Your task to perform on an android device: turn on improve location accuracy Image 0: 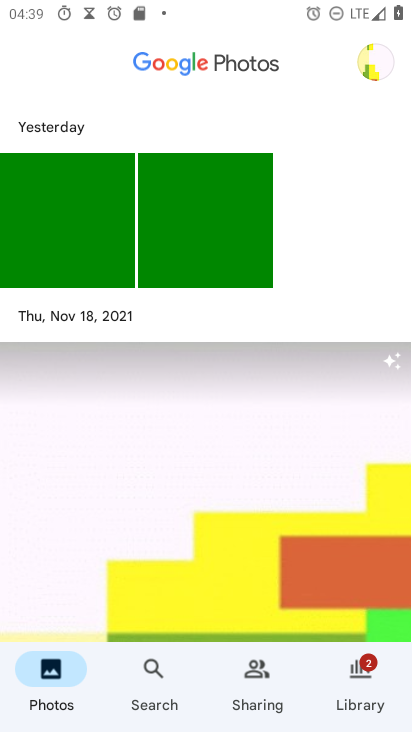
Step 0: press home button
Your task to perform on an android device: turn on improve location accuracy Image 1: 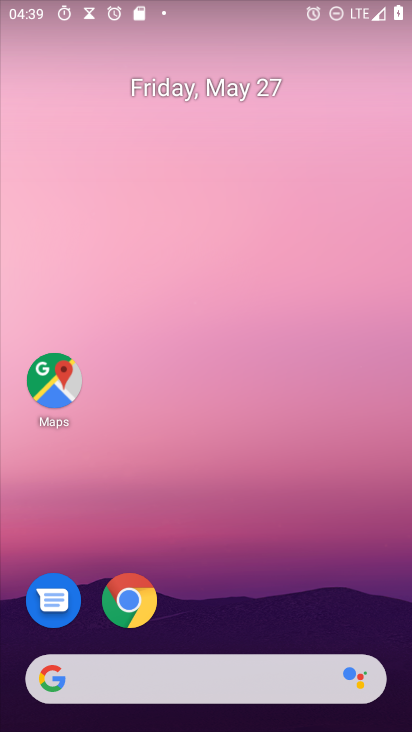
Step 1: drag from (224, 713) to (234, 263)
Your task to perform on an android device: turn on improve location accuracy Image 2: 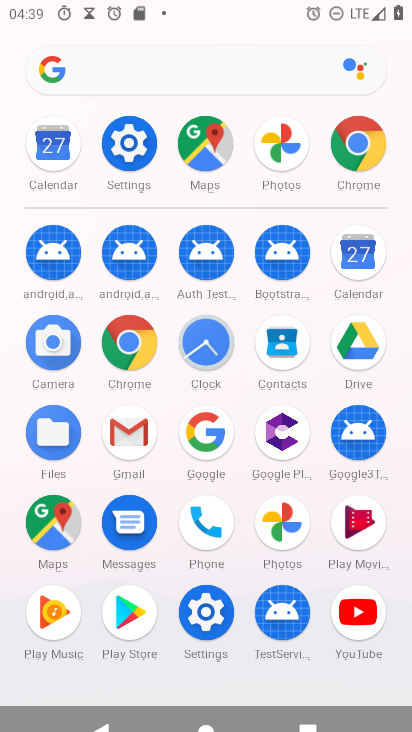
Step 2: click (116, 144)
Your task to perform on an android device: turn on improve location accuracy Image 3: 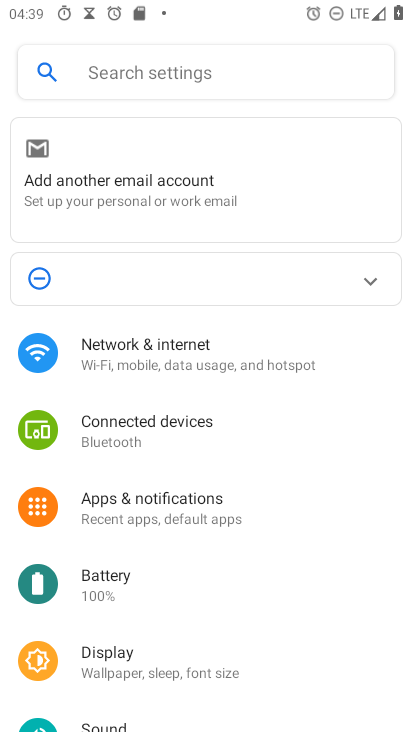
Step 3: drag from (162, 711) to (165, 277)
Your task to perform on an android device: turn on improve location accuracy Image 4: 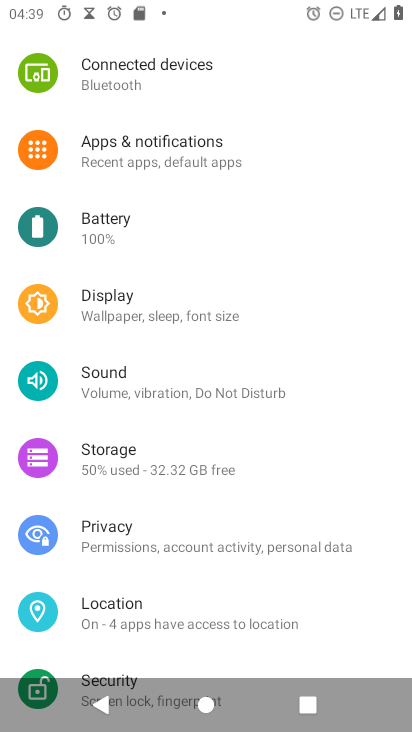
Step 4: click (121, 610)
Your task to perform on an android device: turn on improve location accuracy Image 5: 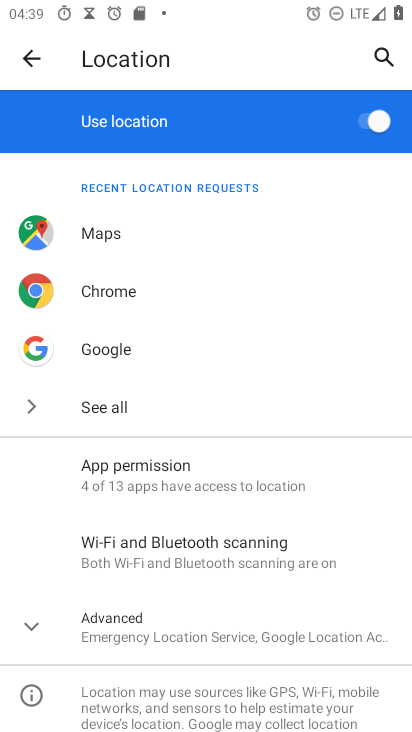
Step 5: click (132, 628)
Your task to perform on an android device: turn on improve location accuracy Image 6: 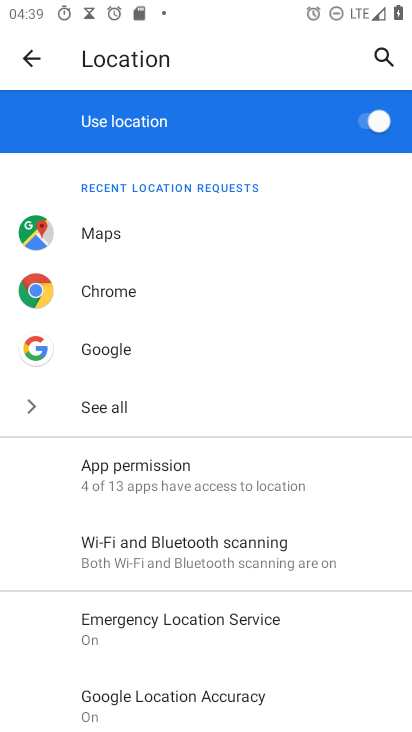
Step 6: click (180, 696)
Your task to perform on an android device: turn on improve location accuracy Image 7: 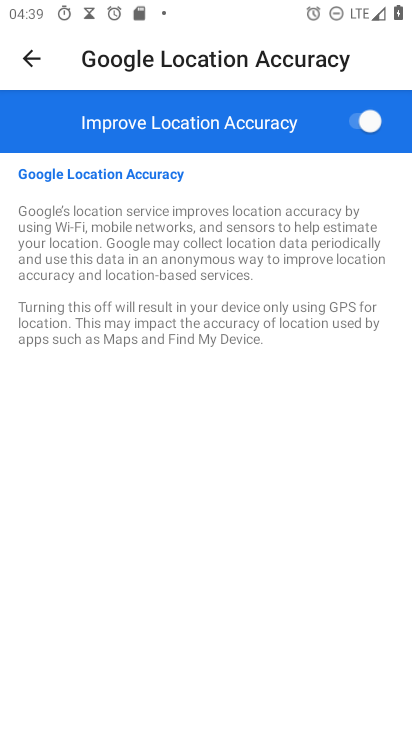
Step 7: task complete